Your task to perform on an android device: turn off location history Image 0: 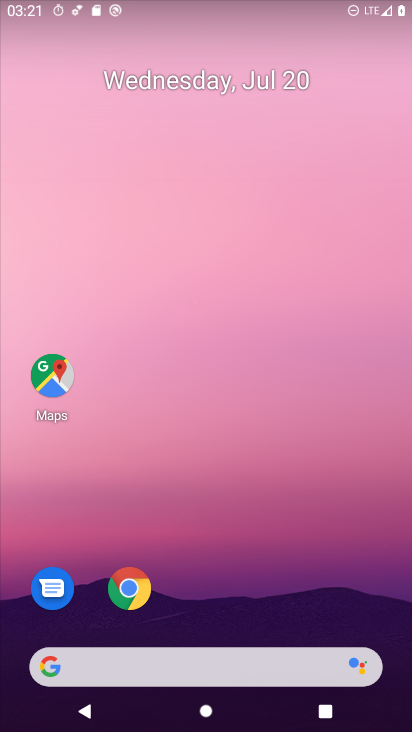
Step 0: drag from (248, 618) to (183, 124)
Your task to perform on an android device: turn off location history Image 1: 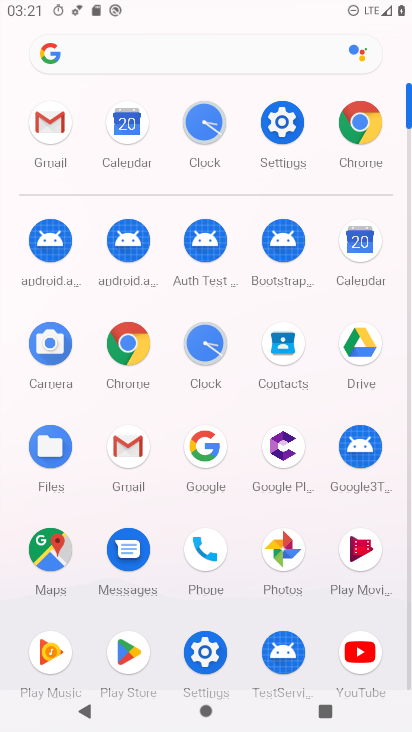
Step 1: click (271, 116)
Your task to perform on an android device: turn off location history Image 2: 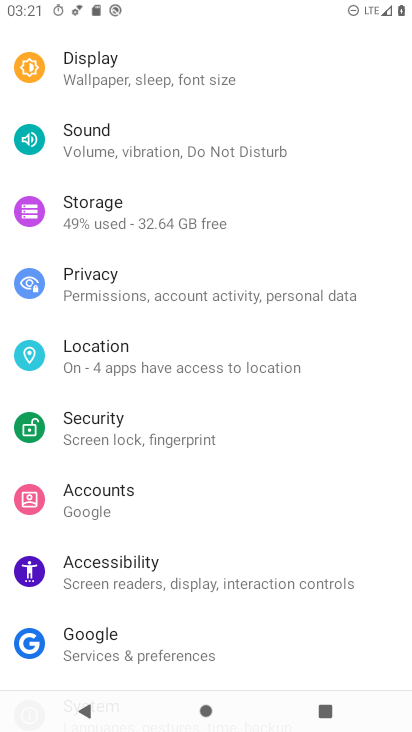
Step 2: click (127, 344)
Your task to perform on an android device: turn off location history Image 3: 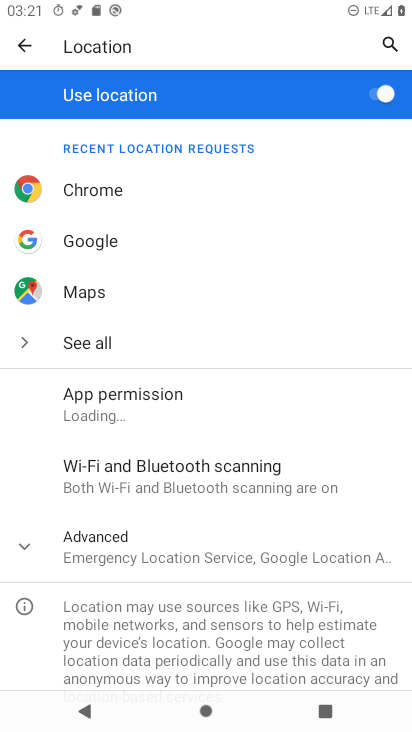
Step 3: click (119, 567)
Your task to perform on an android device: turn off location history Image 4: 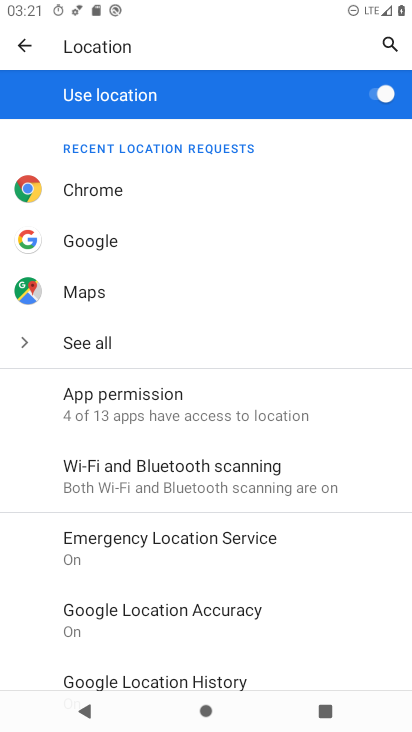
Step 4: click (83, 681)
Your task to perform on an android device: turn off location history Image 5: 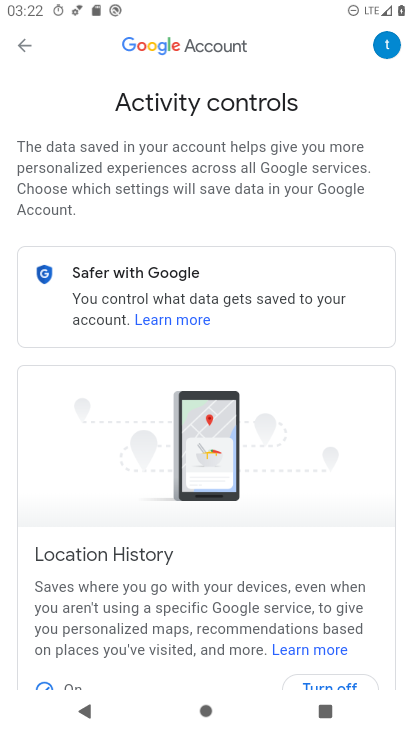
Step 5: click (307, 674)
Your task to perform on an android device: turn off location history Image 6: 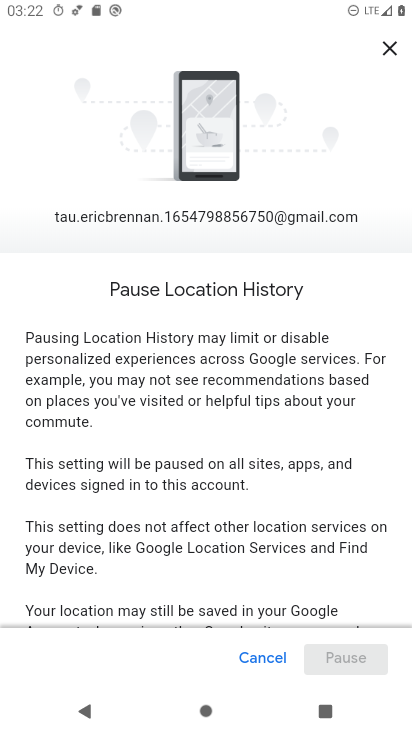
Step 6: drag from (251, 543) to (254, 0)
Your task to perform on an android device: turn off location history Image 7: 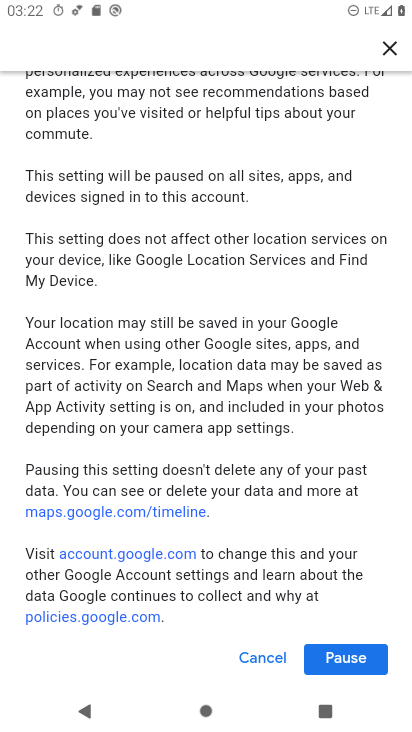
Step 7: click (356, 650)
Your task to perform on an android device: turn off location history Image 8: 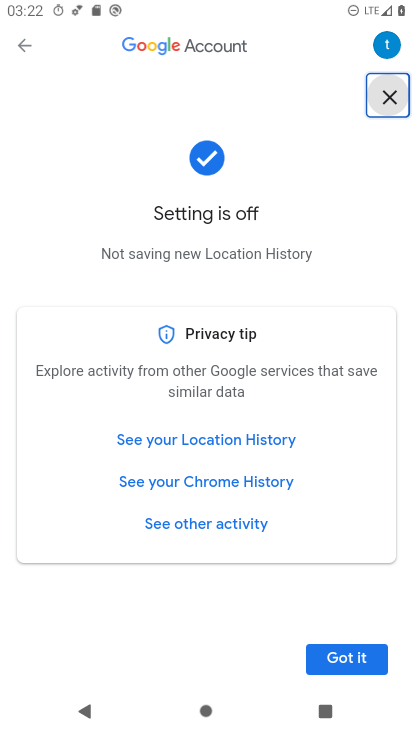
Step 8: click (333, 652)
Your task to perform on an android device: turn off location history Image 9: 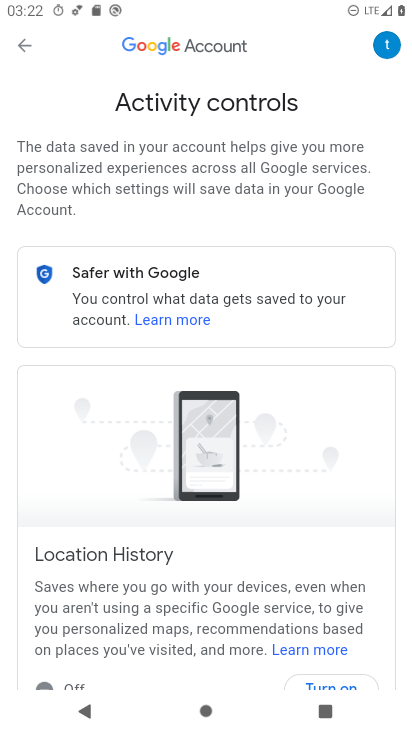
Step 9: task complete